Your task to perform on an android device: turn on wifi Image 0: 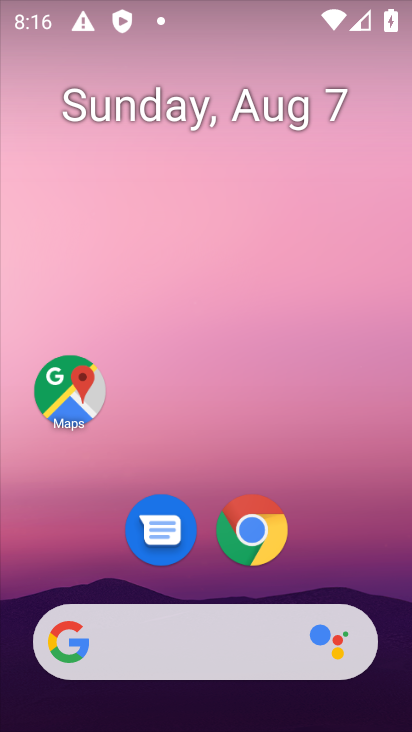
Step 0: drag from (187, 551) to (215, 170)
Your task to perform on an android device: turn on wifi Image 1: 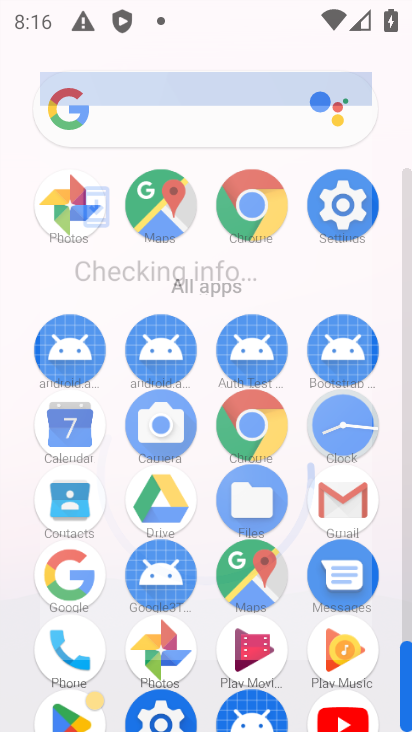
Step 1: click (352, 203)
Your task to perform on an android device: turn on wifi Image 2: 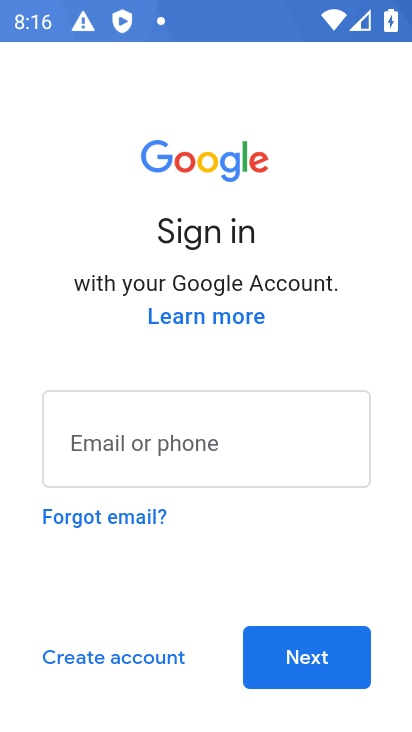
Step 2: press home button
Your task to perform on an android device: turn on wifi Image 3: 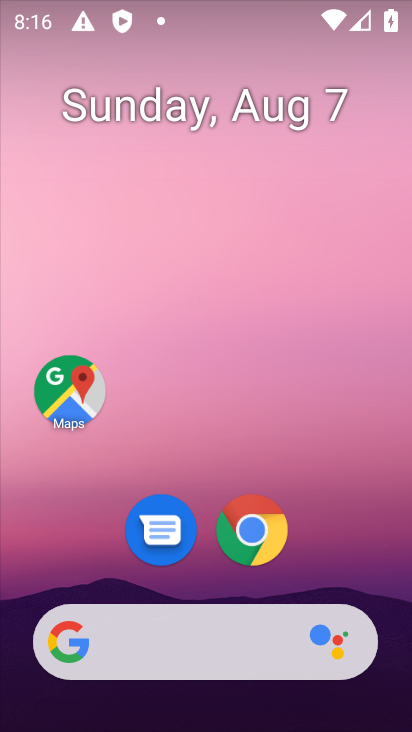
Step 3: drag from (227, 559) to (289, 17)
Your task to perform on an android device: turn on wifi Image 4: 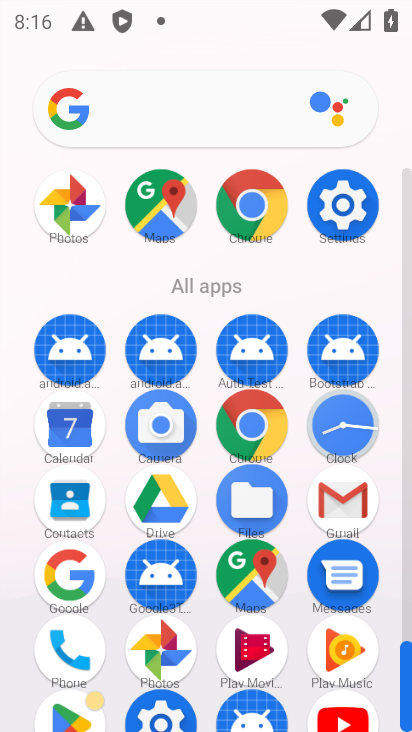
Step 4: click (364, 211)
Your task to perform on an android device: turn on wifi Image 5: 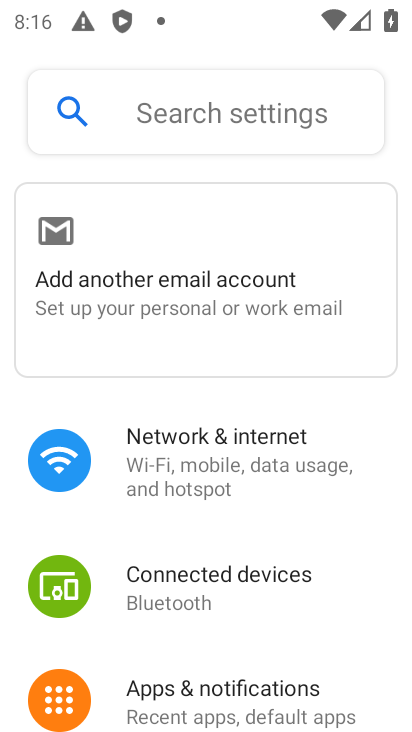
Step 5: click (182, 481)
Your task to perform on an android device: turn on wifi Image 6: 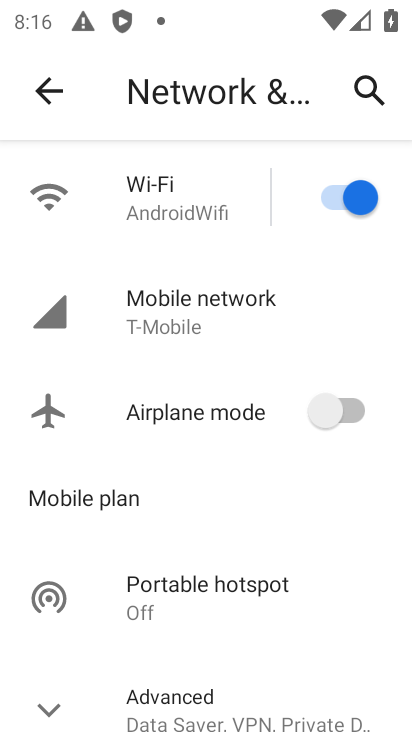
Step 6: task complete